Your task to perform on an android device: Show the shopping cart on walmart.com. Add energizer triple a to the cart on walmart.com, then select checkout. Image 0: 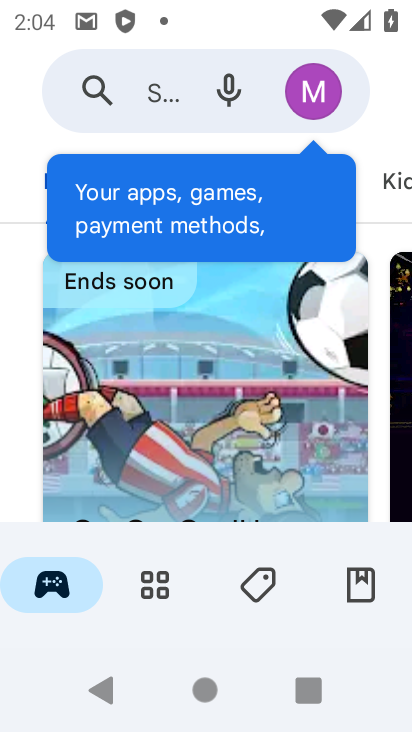
Step 0: task complete